Your task to perform on an android device: Show me the alarms in the clock app Image 0: 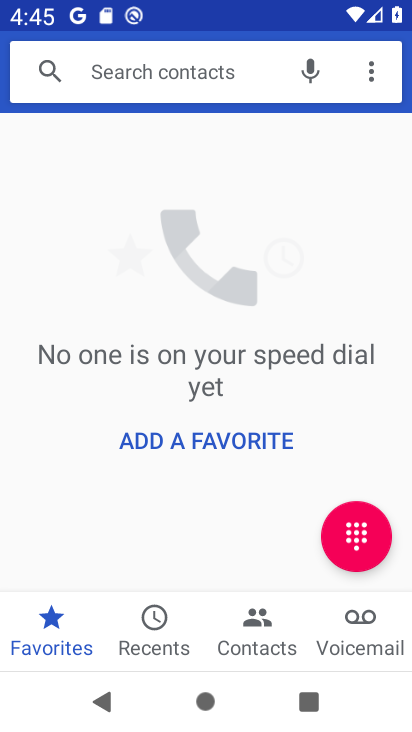
Step 0: press home button
Your task to perform on an android device: Show me the alarms in the clock app Image 1: 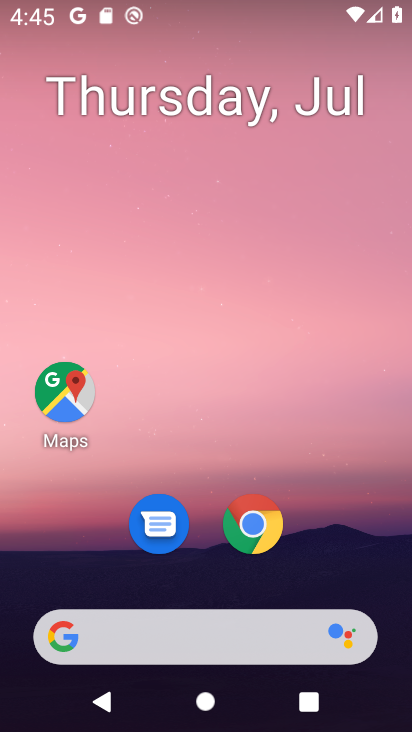
Step 1: drag from (211, 616) to (167, 199)
Your task to perform on an android device: Show me the alarms in the clock app Image 2: 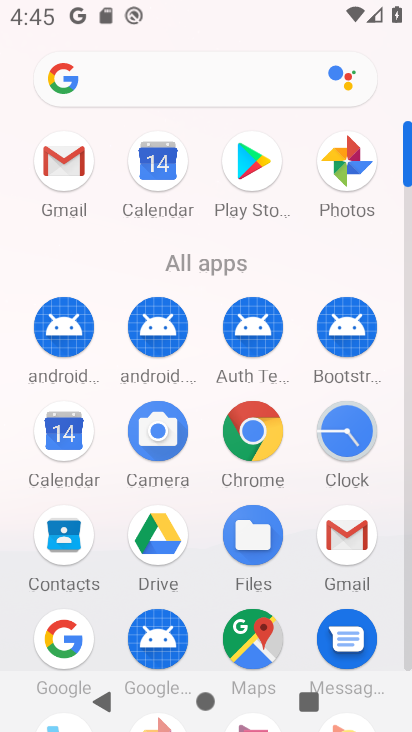
Step 2: click (353, 412)
Your task to perform on an android device: Show me the alarms in the clock app Image 3: 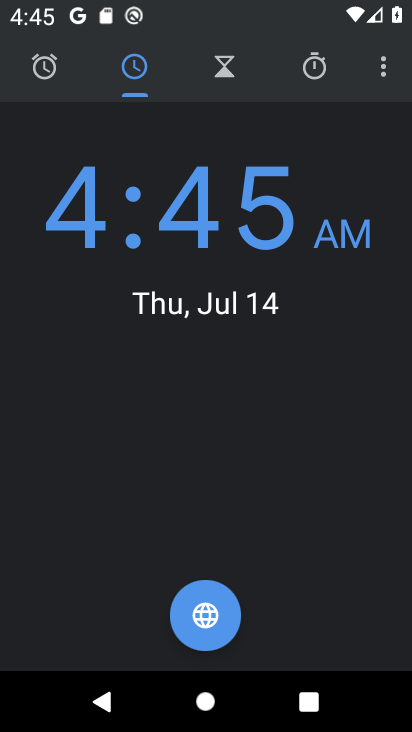
Step 3: click (38, 77)
Your task to perform on an android device: Show me the alarms in the clock app Image 4: 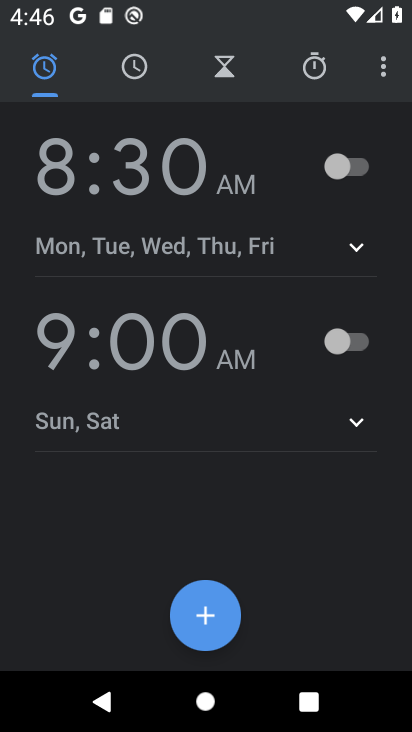
Step 4: task complete